Your task to perform on an android device: manage bookmarks in the chrome app Image 0: 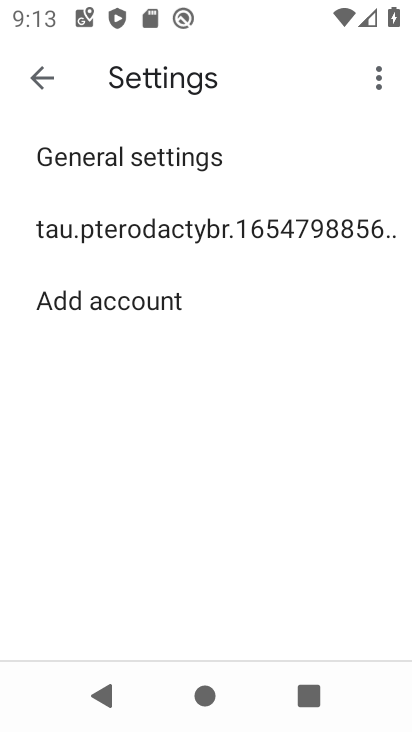
Step 0: press back button
Your task to perform on an android device: manage bookmarks in the chrome app Image 1: 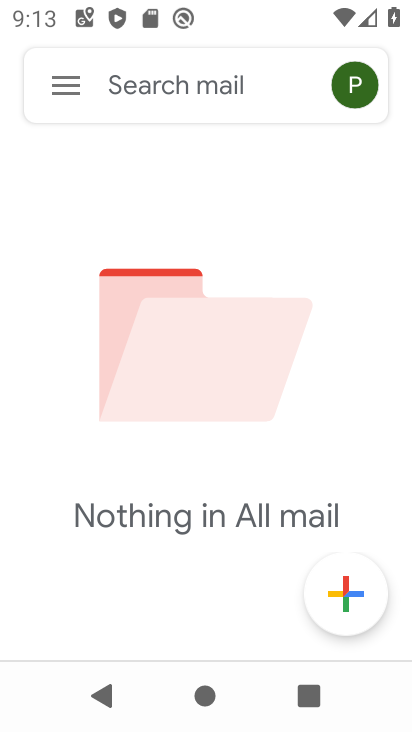
Step 1: press back button
Your task to perform on an android device: manage bookmarks in the chrome app Image 2: 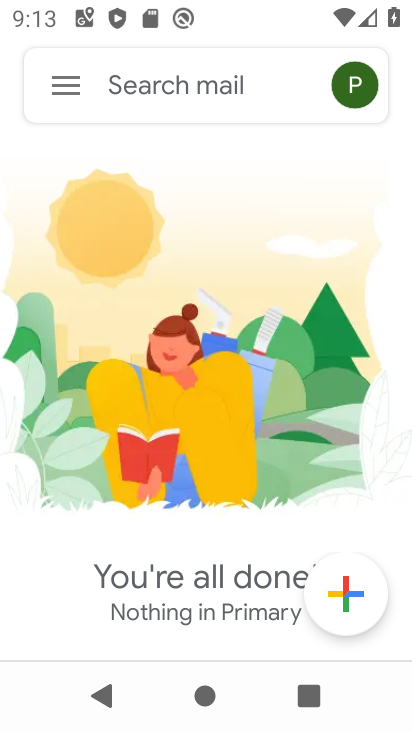
Step 2: press back button
Your task to perform on an android device: manage bookmarks in the chrome app Image 3: 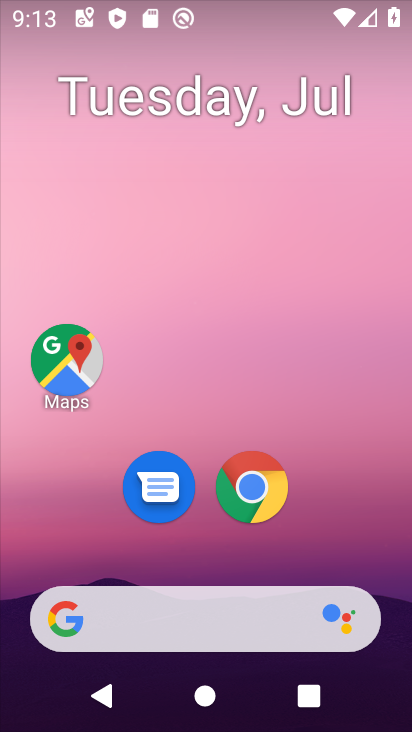
Step 3: click (254, 467)
Your task to perform on an android device: manage bookmarks in the chrome app Image 4: 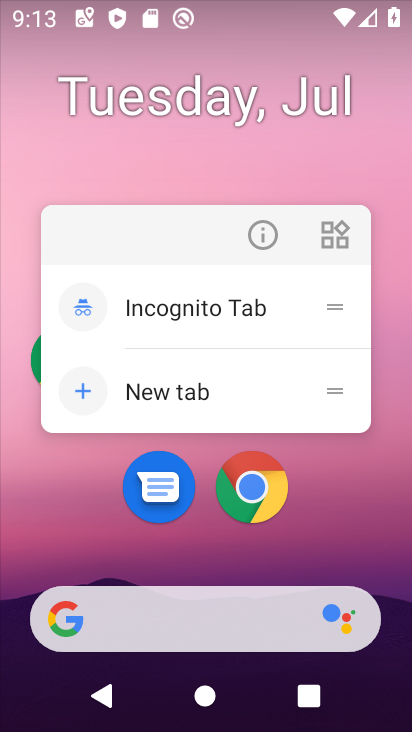
Step 4: click (251, 485)
Your task to perform on an android device: manage bookmarks in the chrome app Image 5: 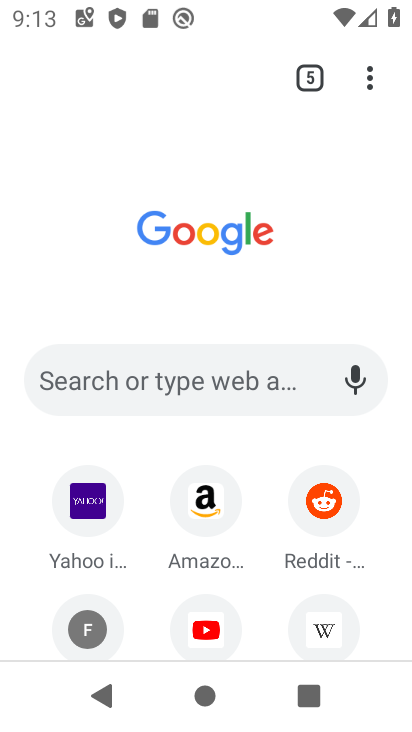
Step 5: drag from (362, 75) to (109, 403)
Your task to perform on an android device: manage bookmarks in the chrome app Image 6: 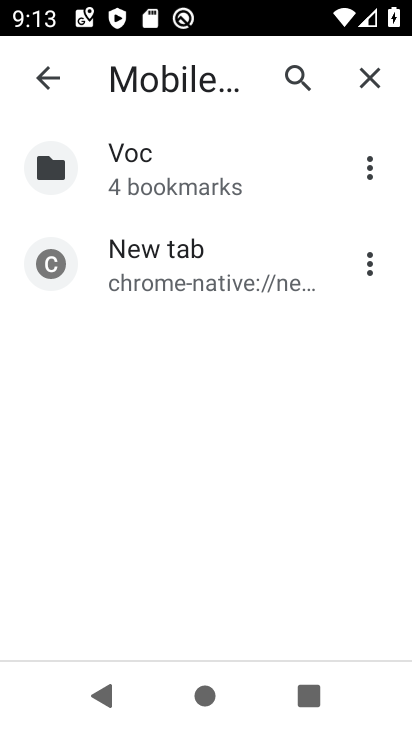
Step 6: click (362, 263)
Your task to perform on an android device: manage bookmarks in the chrome app Image 7: 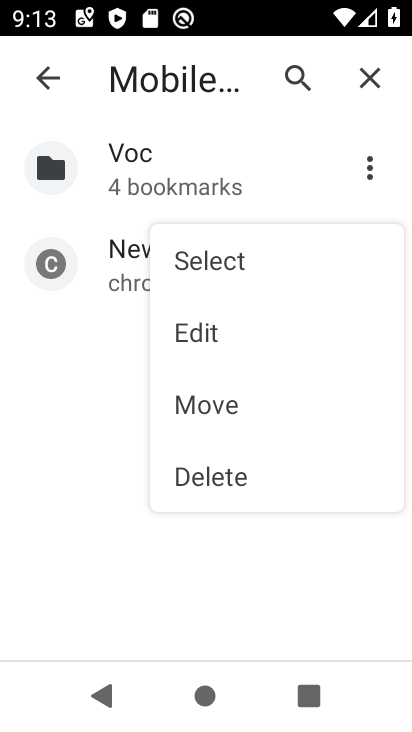
Step 7: click (205, 466)
Your task to perform on an android device: manage bookmarks in the chrome app Image 8: 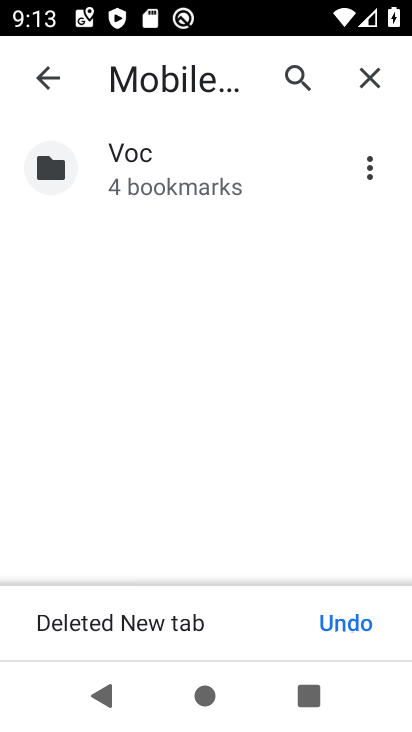
Step 8: task complete